Your task to perform on an android device: Search for sushi restaurants on Maps Image 0: 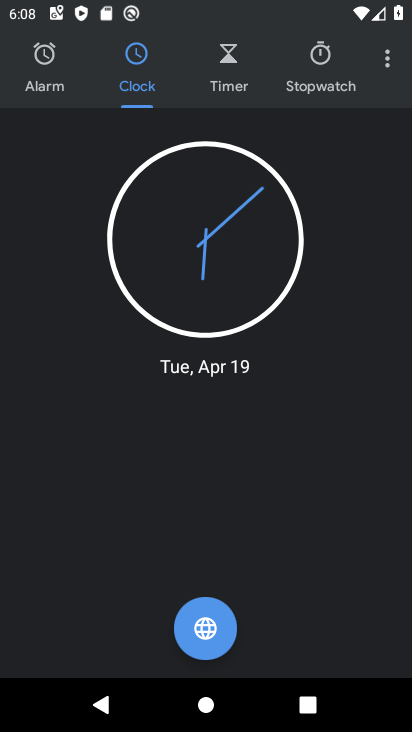
Step 0: press home button
Your task to perform on an android device: Search for sushi restaurants on Maps Image 1: 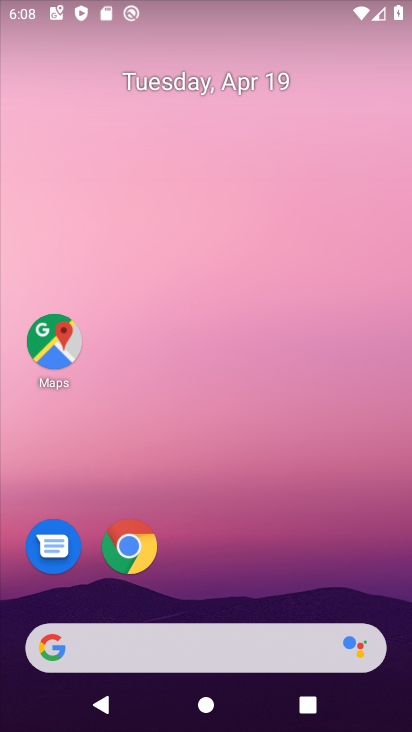
Step 1: drag from (243, 450) to (265, 52)
Your task to perform on an android device: Search for sushi restaurants on Maps Image 2: 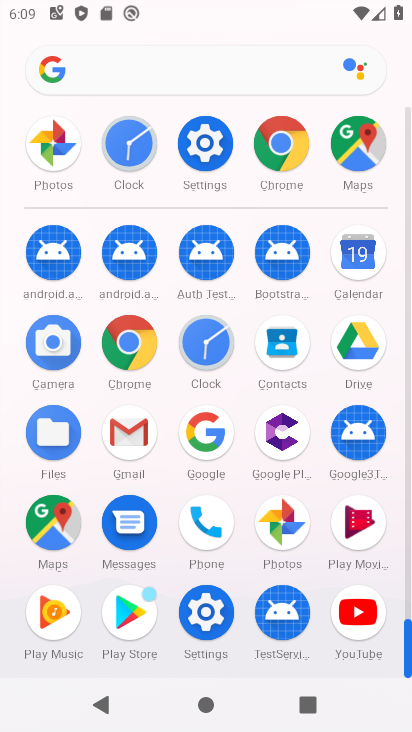
Step 2: click (47, 510)
Your task to perform on an android device: Search for sushi restaurants on Maps Image 3: 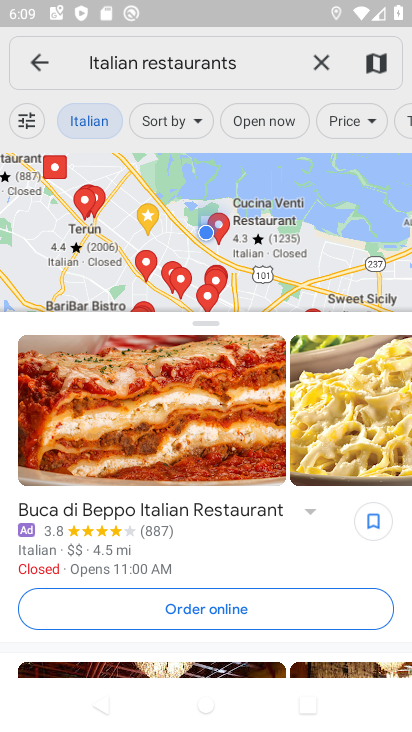
Step 3: click (247, 75)
Your task to perform on an android device: Search for sushi restaurants on Maps Image 4: 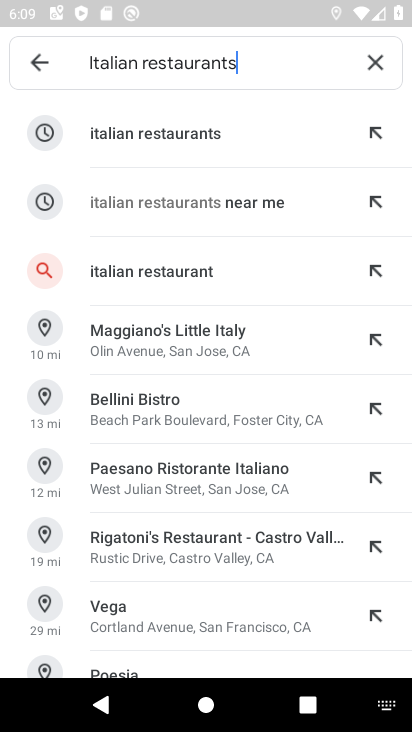
Step 4: click (373, 61)
Your task to perform on an android device: Search for sushi restaurants on Maps Image 5: 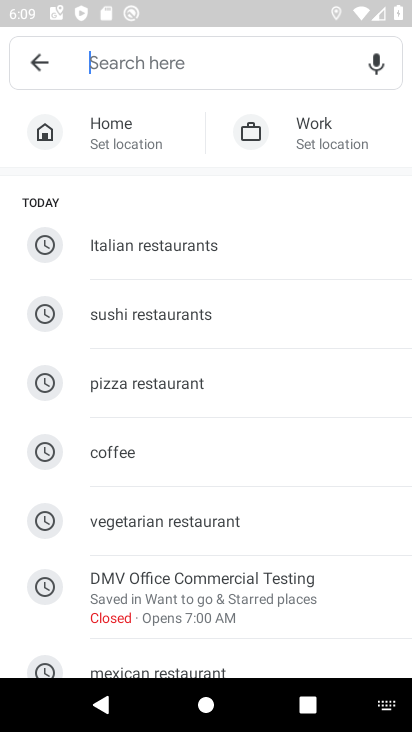
Step 5: click (180, 317)
Your task to perform on an android device: Search for sushi restaurants on Maps Image 6: 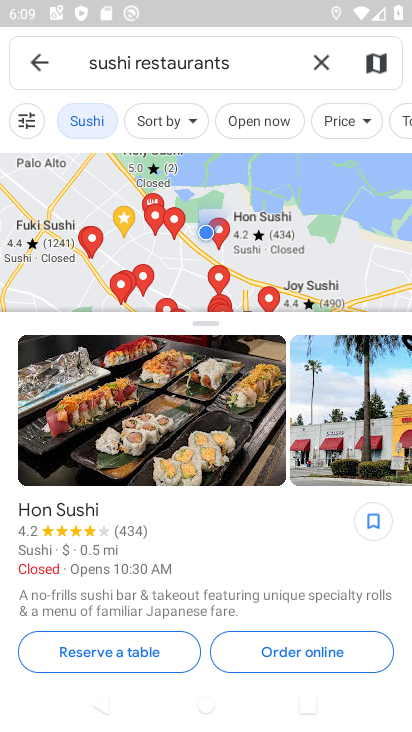
Step 6: task complete